Your task to perform on an android device: toggle notification dots Image 0: 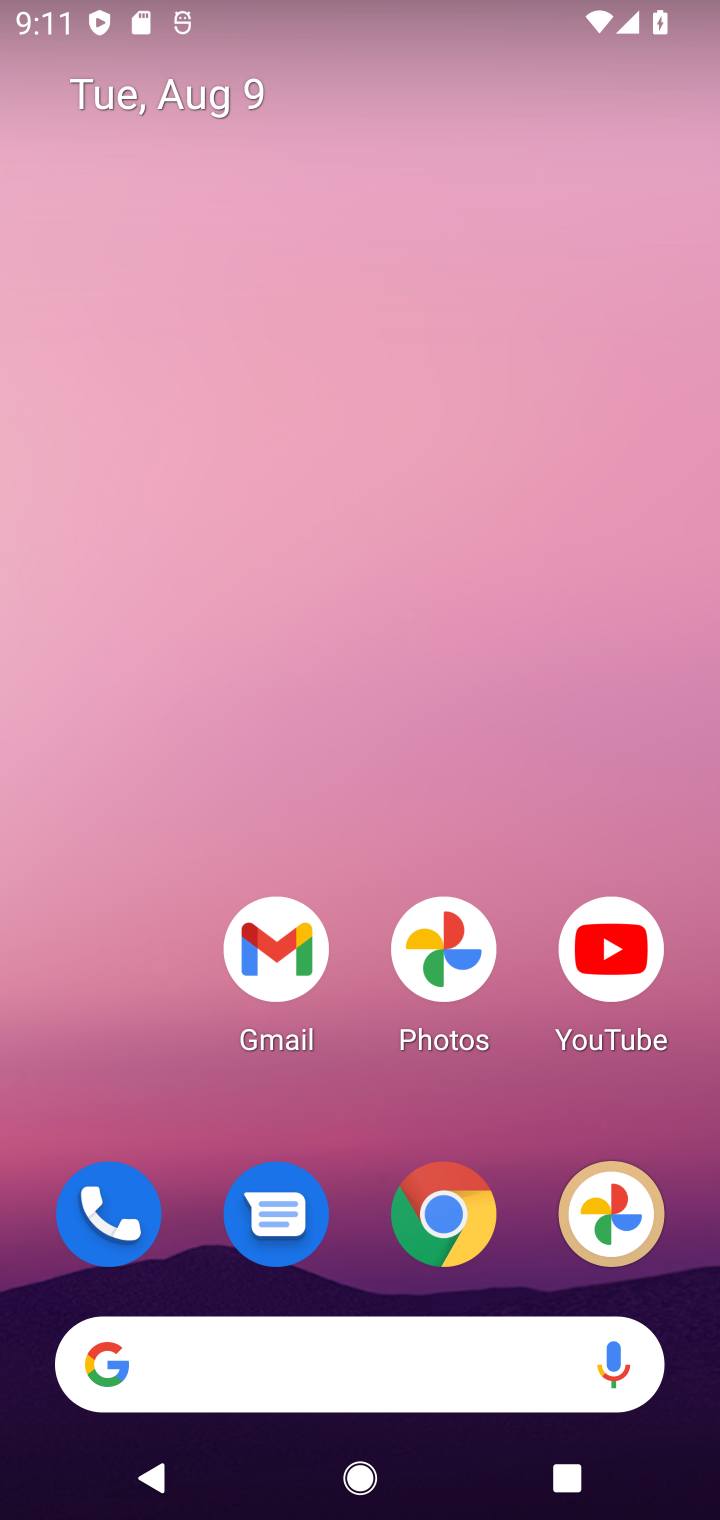
Step 0: drag from (169, 1234) to (506, 488)
Your task to perform on an android device: toggle notification dots Image 1: 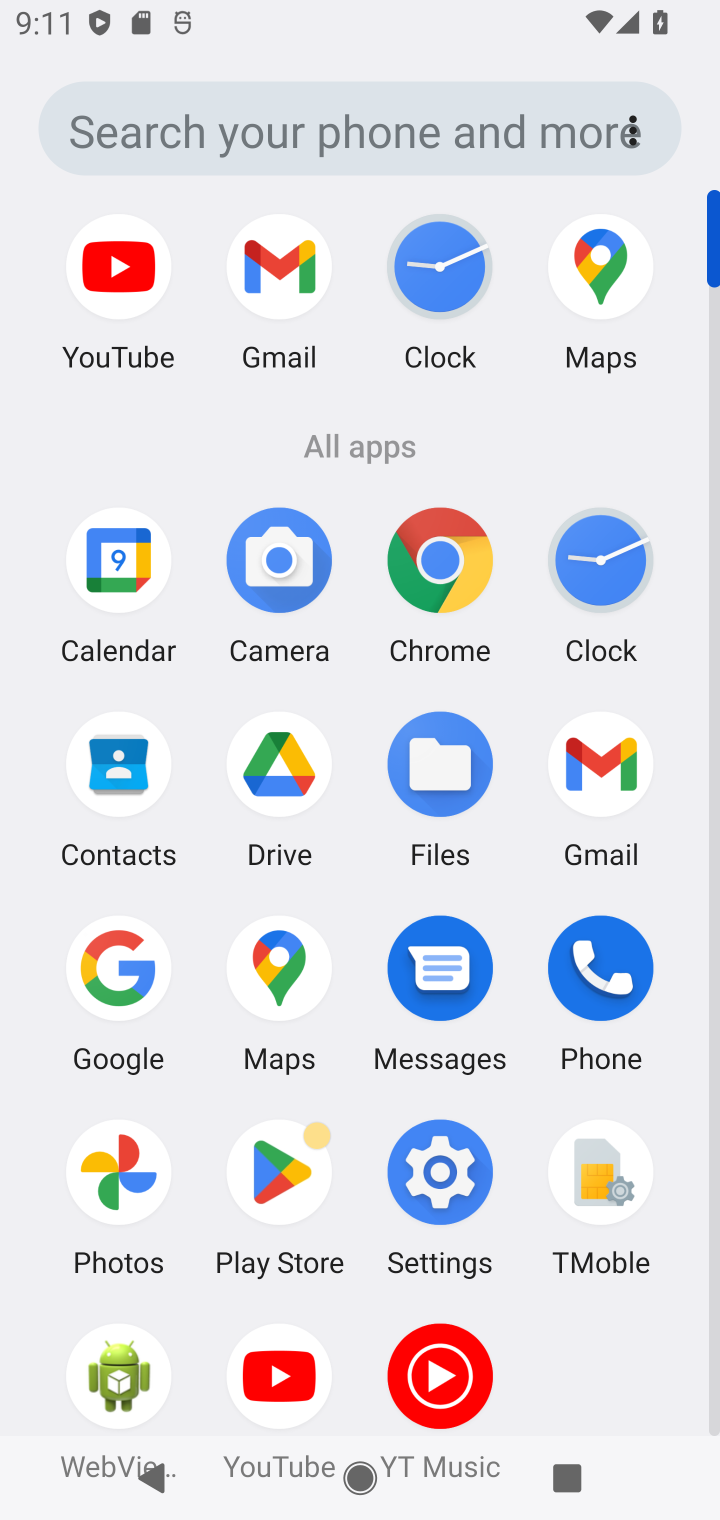
Step 1: click (441, 1176)
Your task to perform on an android device: toggle notification dots Image 2: 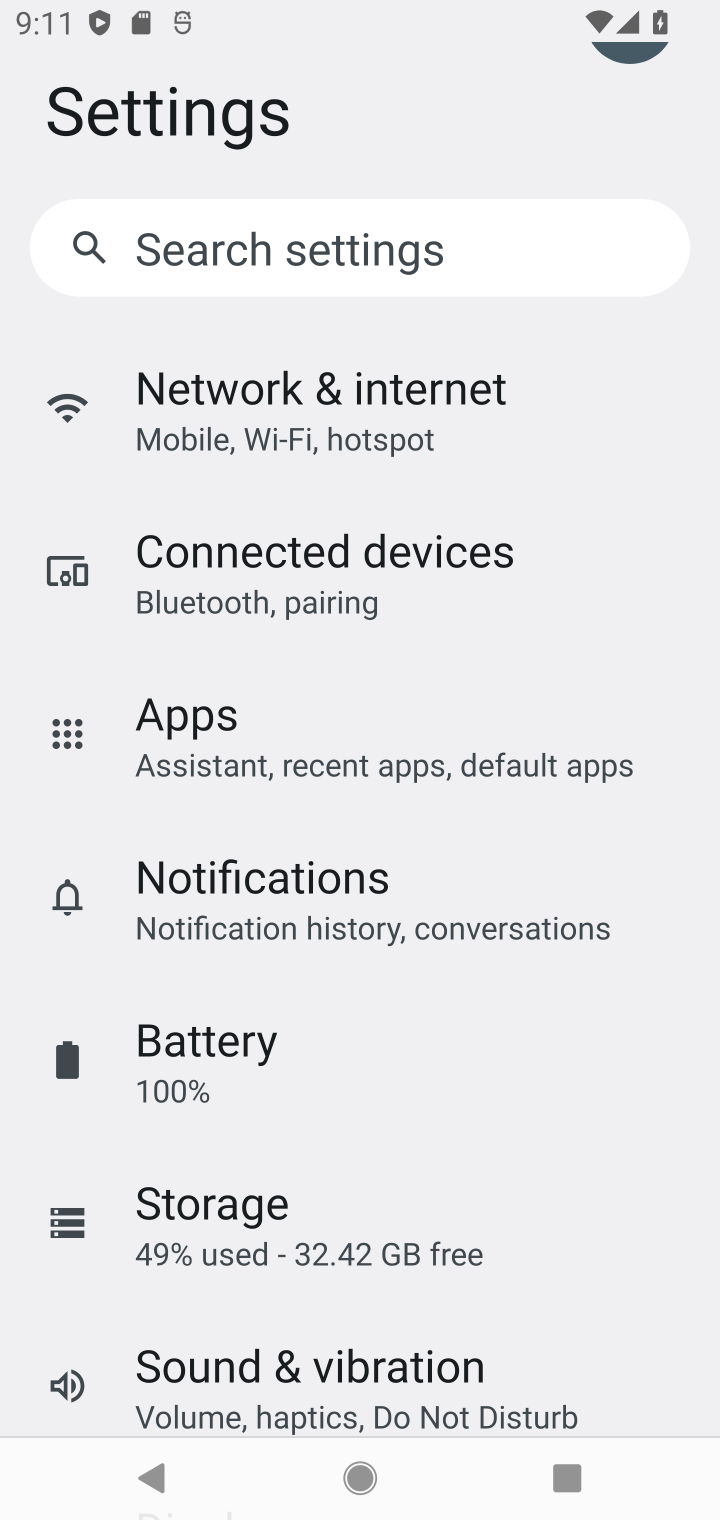
Step 2: click (282, 932)
Your task to perform on an android device: toggle notification dots Image 3: 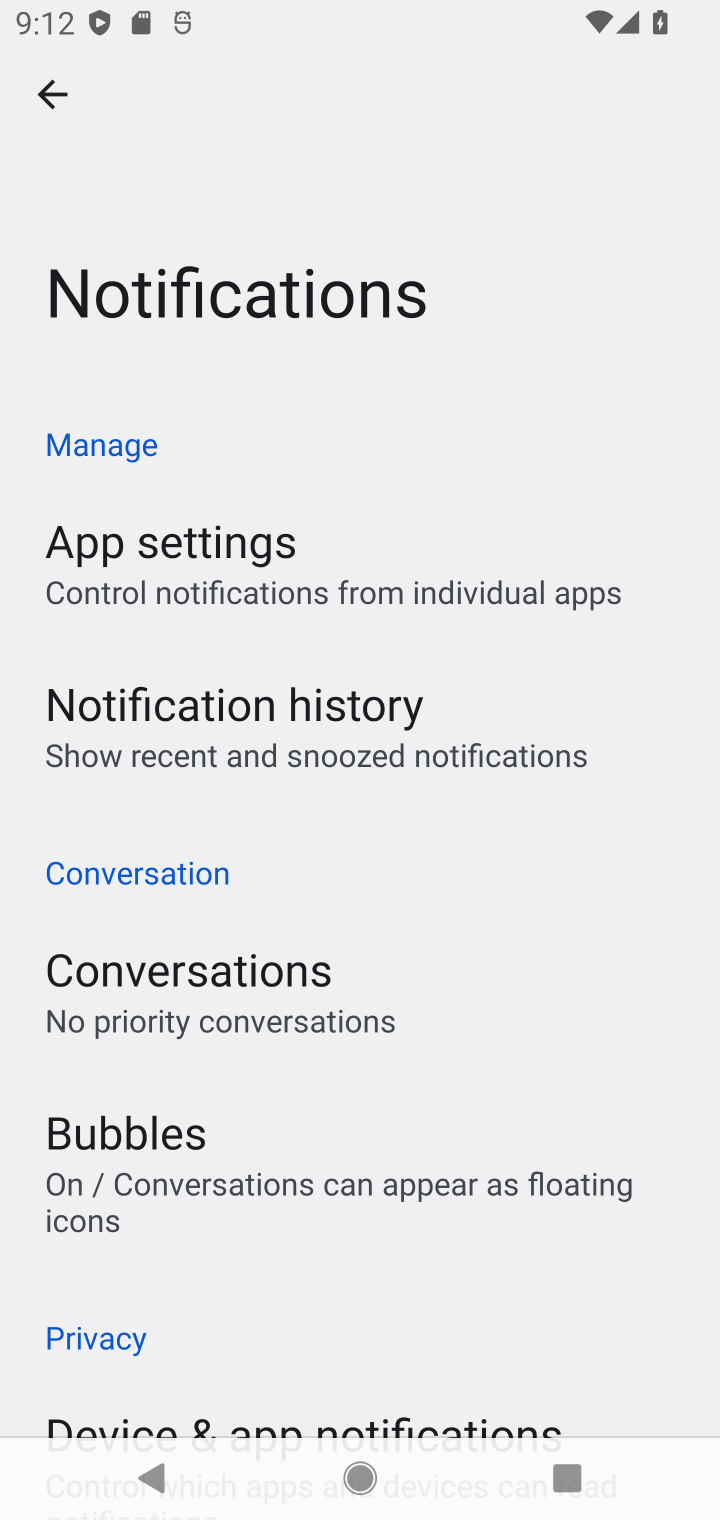
Step 3: click (247, 693)
Your task to perform on an android device: toggle notification dots Image 4: 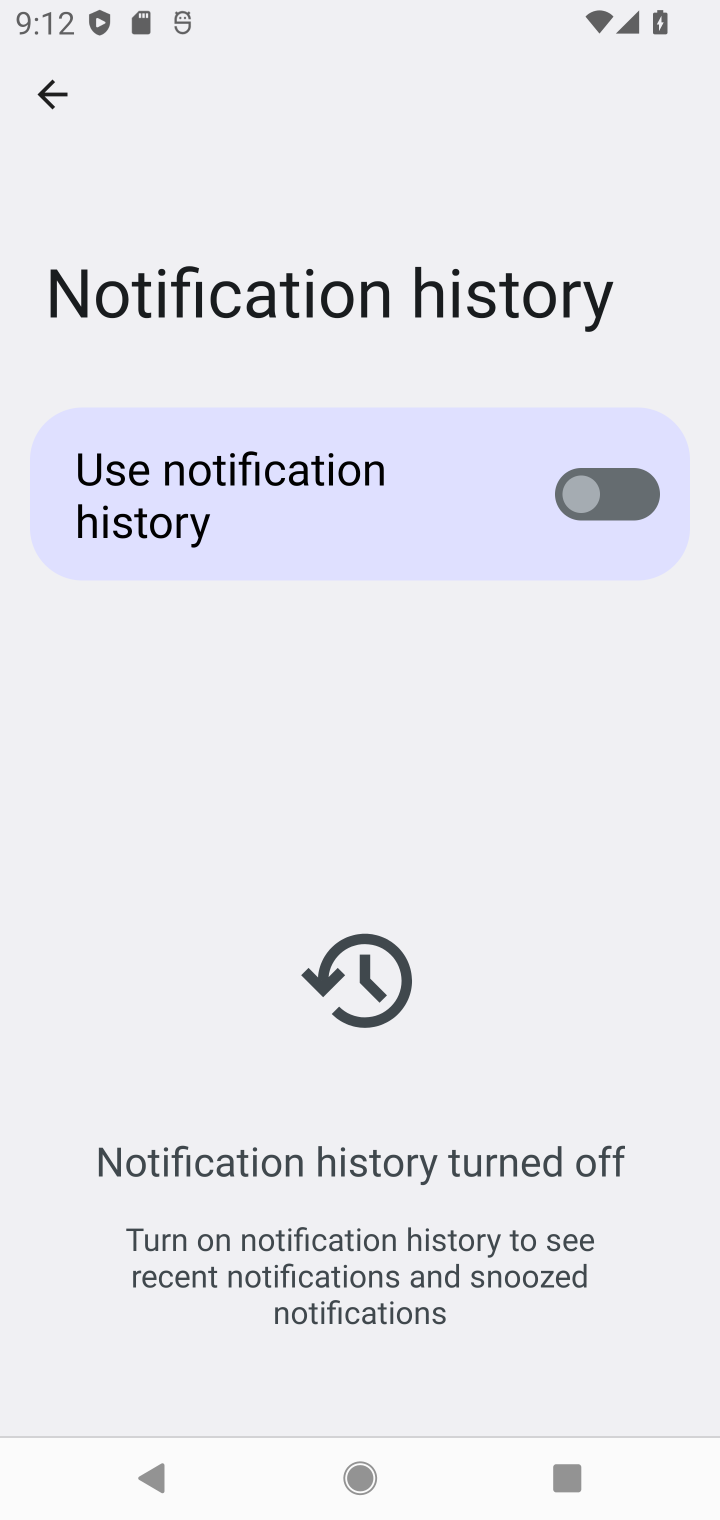
Step 4: task complete